Your task to perform on an android device: Go to notification settings Image 0: 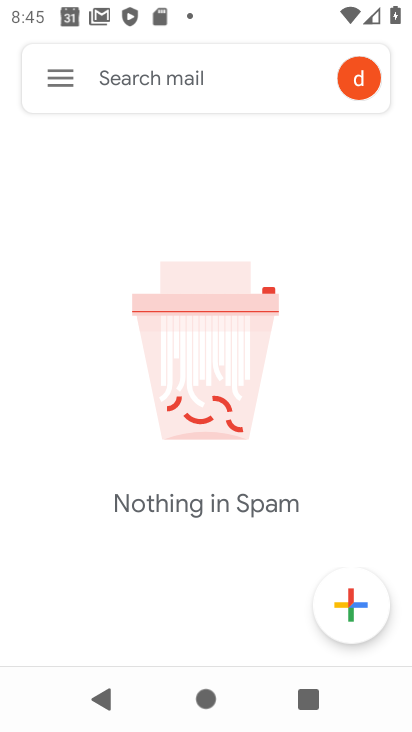
Step 0: press home button
Your task to perform on an android device: Go to notification settings Image 1: 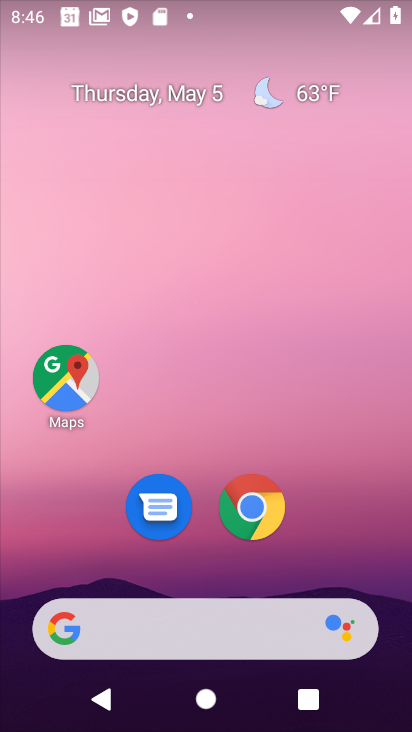
Step 1: drag from (357, 556) to (277, 53)
Your task to perform on an android device: Go to notification settings Image 2: 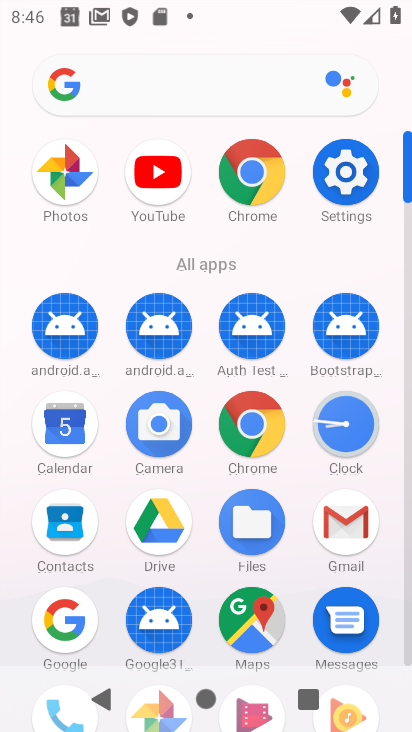
Step 2: click (350, 177)
Your task to perform on an android device: Go to notification settings Image 3: 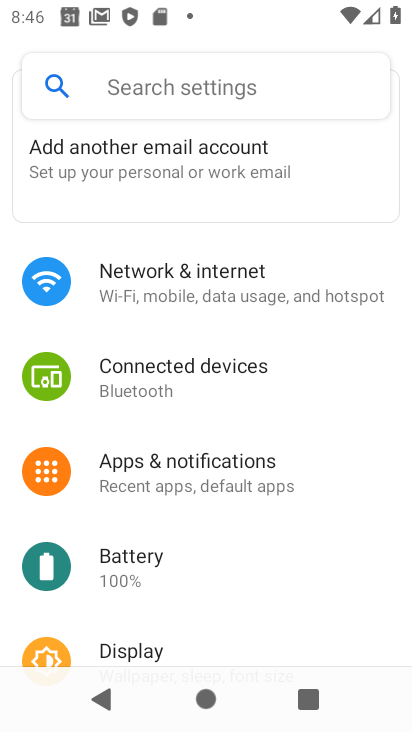
Step 3: drag from (185, 596) to (173, 497)
Your task to perform on an android device: Go to notification settings Image 4: 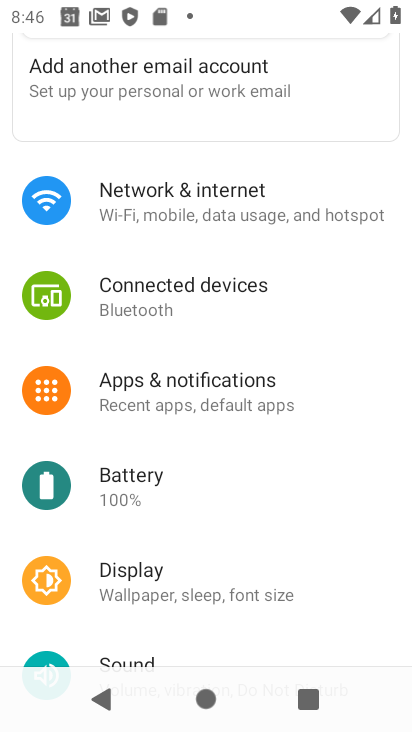
Step 4: click (179, 404)
Your task to perform on an android device: Go to notification settings Image 5: 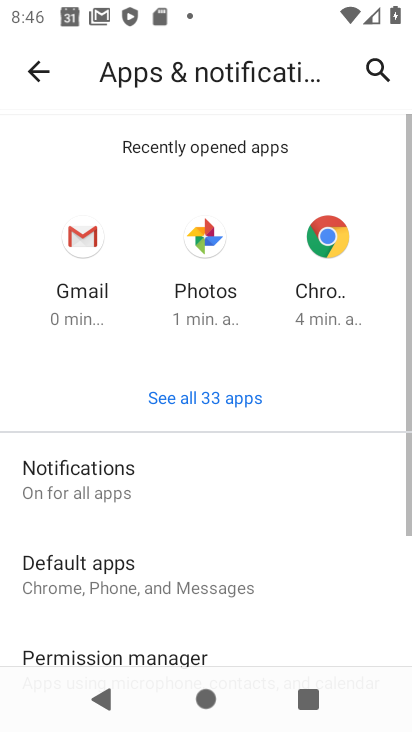
Step 5: click (165, 456)
Your task to perform on an android device: Go to notification settings Image 6: 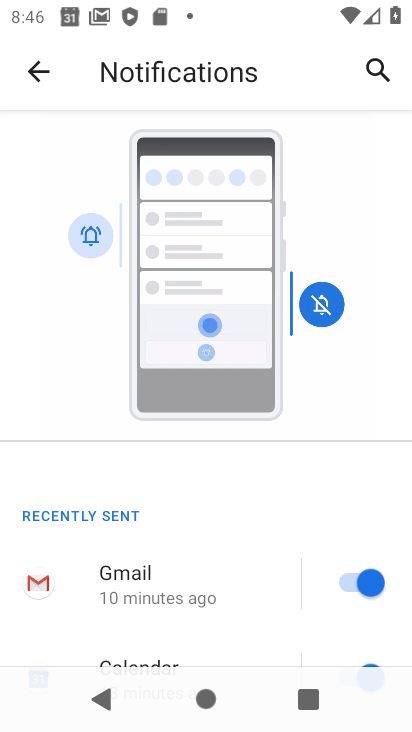
Step 6: task complete